Your task to perform on an android device: Go to CNN.com Image 0: 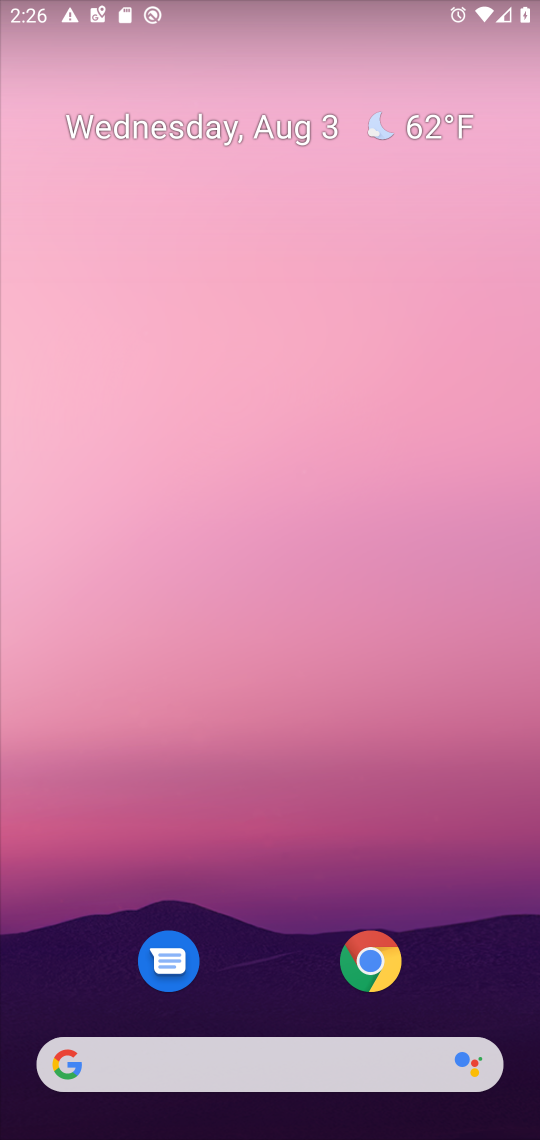
Step 0: click (379, 991)
Your task to perform on an android device: Go to CNN.com Image 1: 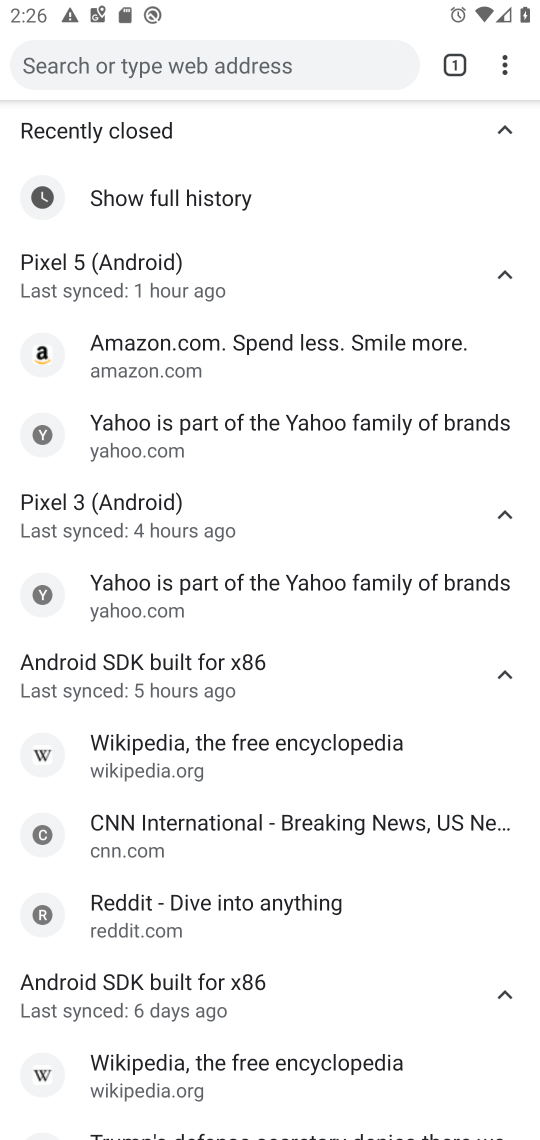
Step 1: click (220, 67)
Your task to perform on an android device: Go to CNN.com Image 2: 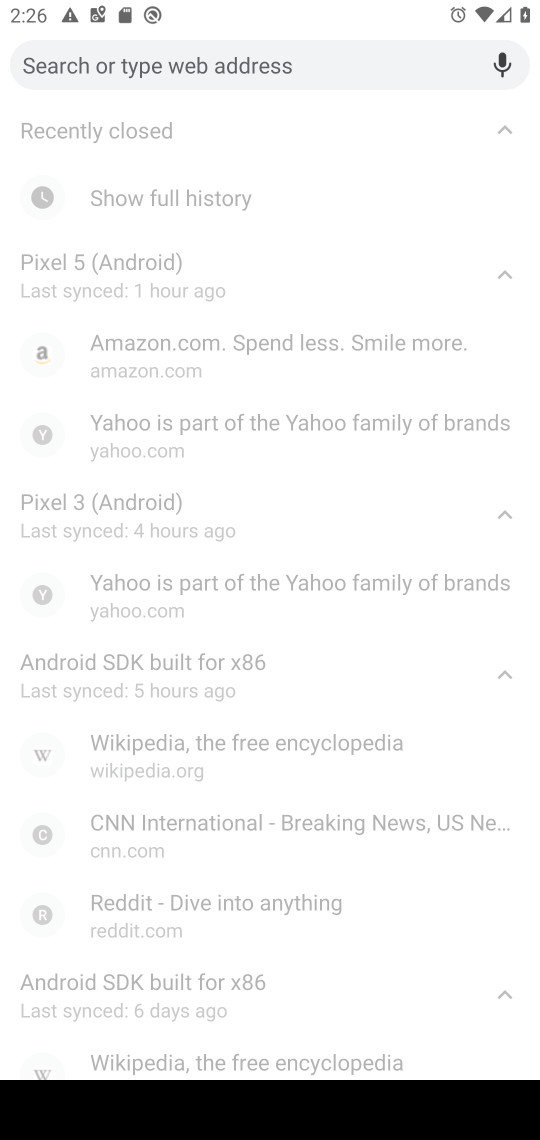
Step 2: type "cnn.com"
Your task to perform on an android device: Go to CNN.com Image 3: 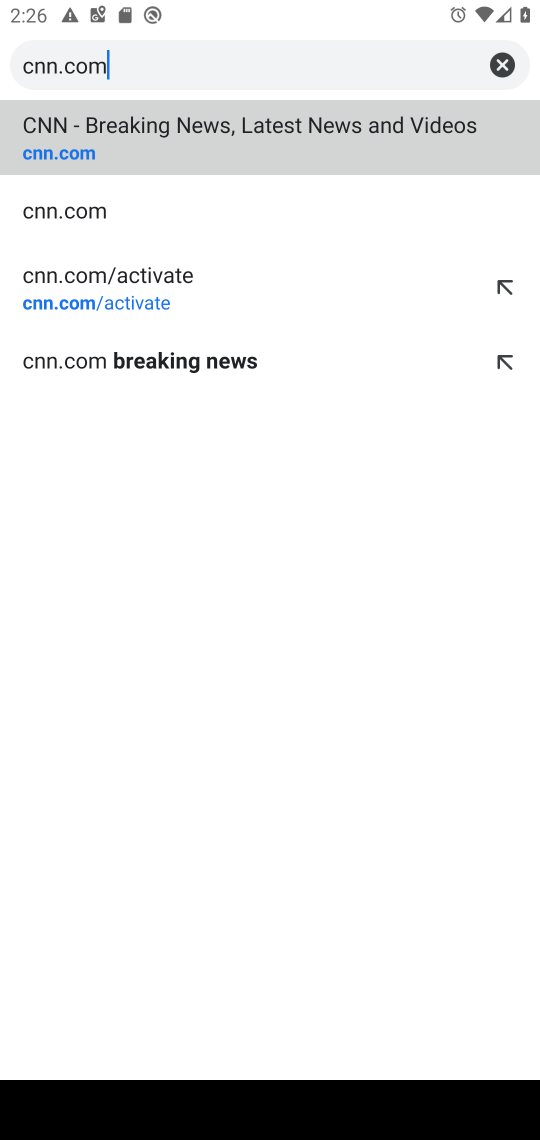
Step 3: click (45, 143)
Your task to perform on an android device: Go to CNN.com Image 4: 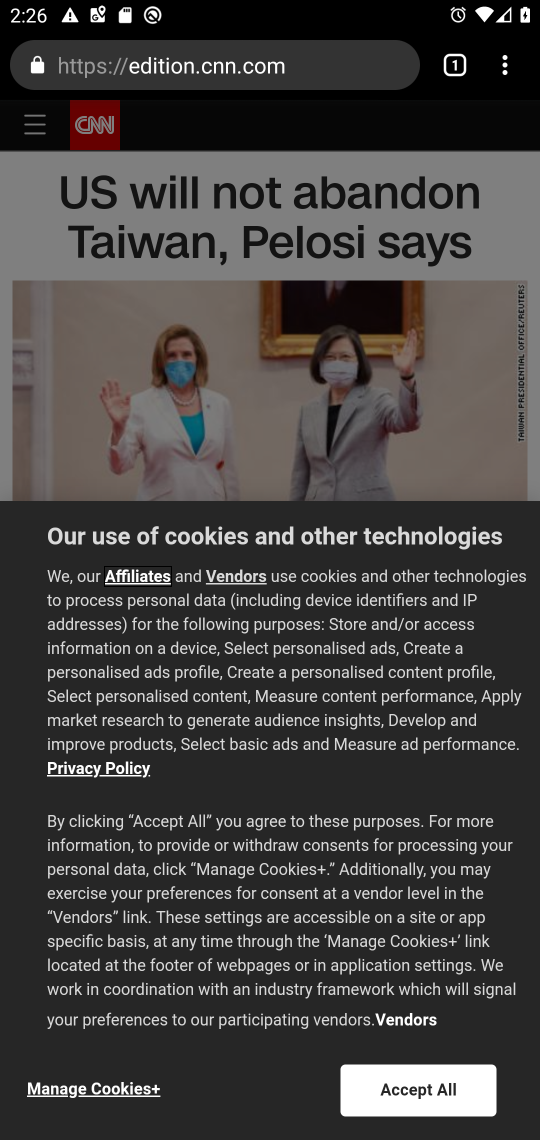
Step 4: task complete